Your task to perform on an android device: Do I have any events today? Image 0: 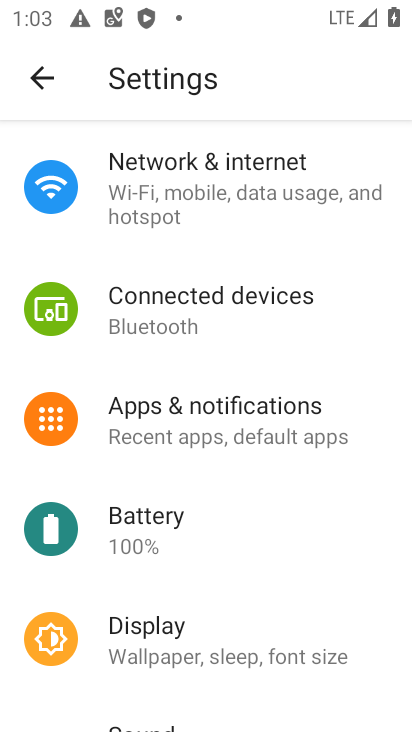
Step 0: press home button
Your task to perform on an android device: Do I have any events today? Image 1: 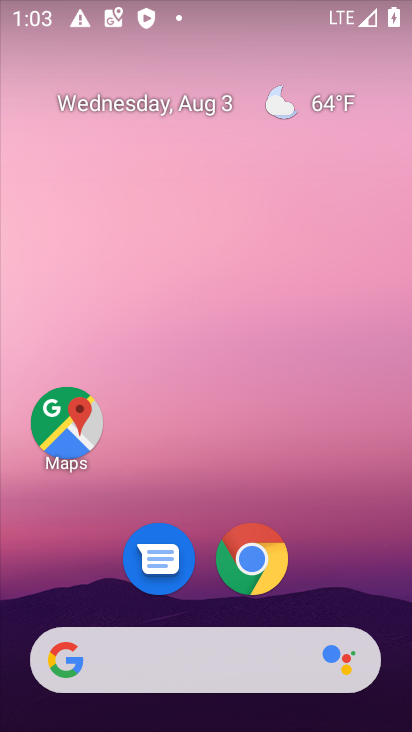
Step 1: drag from (201, 607) to (190, 41)
Your task to perform on an android device: Do I have any events today? Image 2: 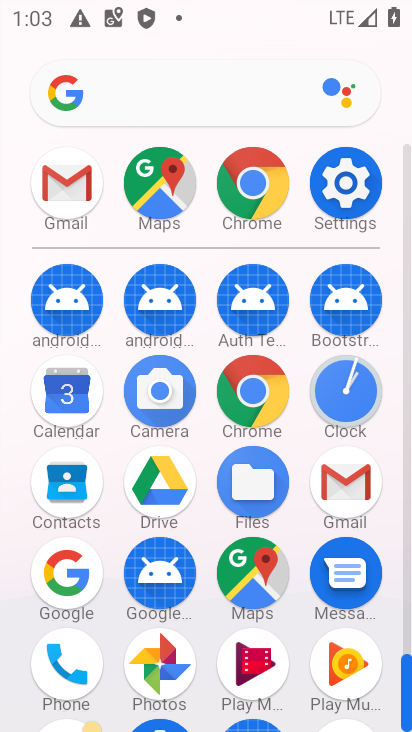
Step 2: click (61, 400)
Your task to perform on an android device: Do I have any events today? Image 3: 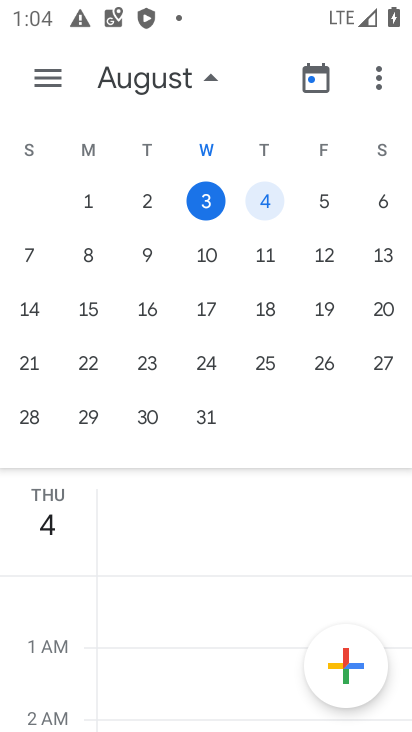
Step 3: click (199, 202)
Your task to perform on an android device: Do I have any events today? Image 4: 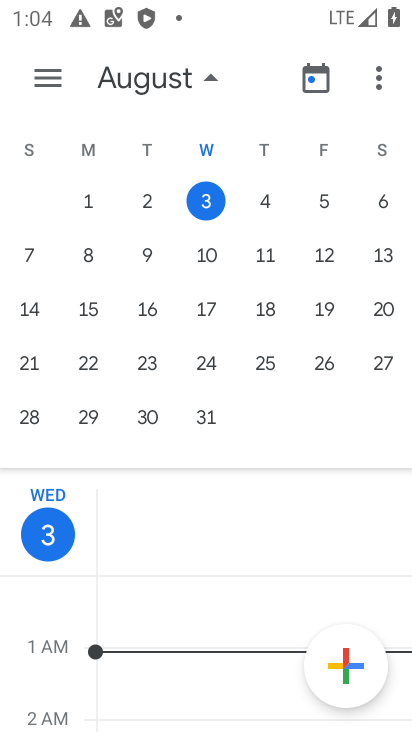
Step 4: click (45, 78)
Your task to perform on an android device: Do I have any events today? Image 5: 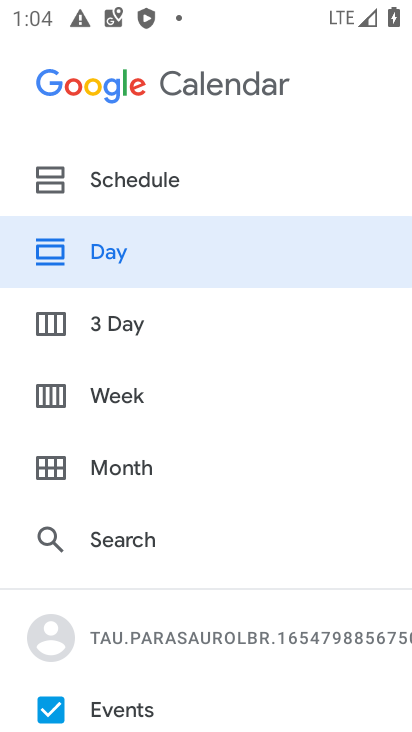
Step 5: drag from (147, 691) to (172, 223)
Your task to perform on an android device: Do I have any events today? Image 6: 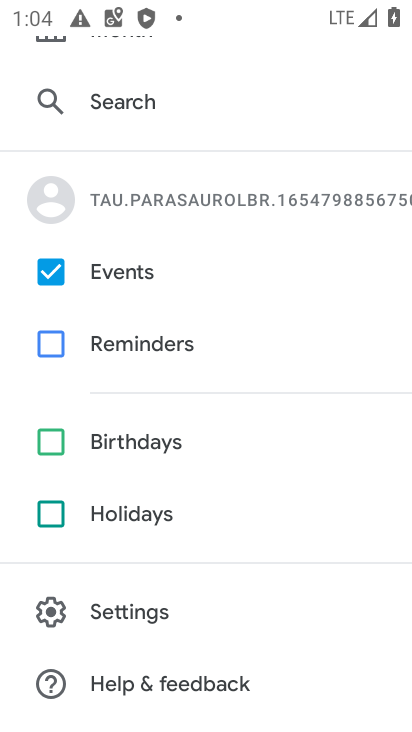
Step 6: drag from (219, 130) to (243, 505)
Your task to perform on an android device: Do I have any events today? Image 7: 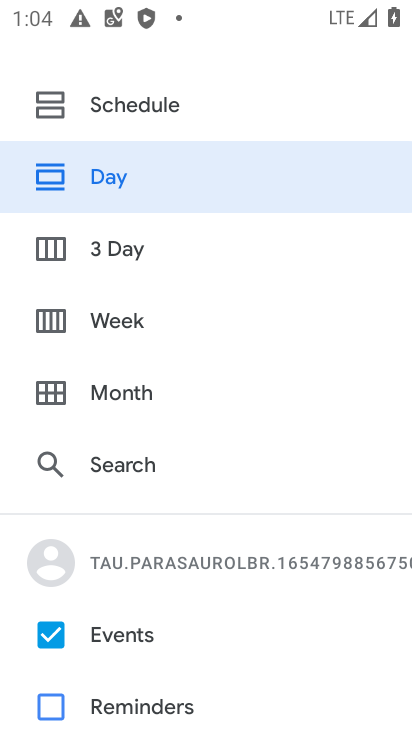
Step 7: click (102, 183)
Your task to perform on an android device: Do I have any events today? Image 8: 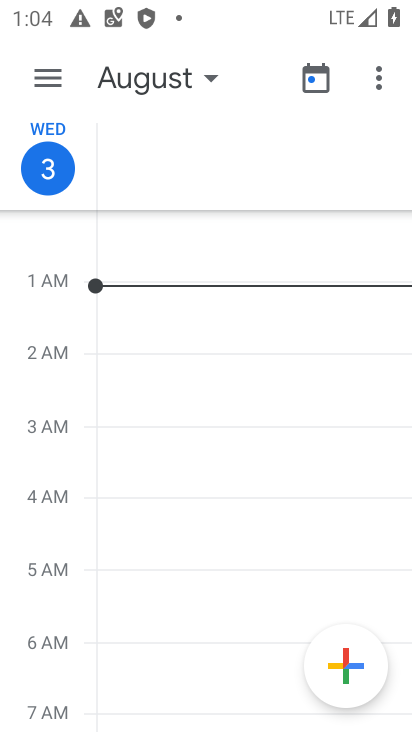
Step 8: task complete